Your task to perform on an android device: turn pop-ups on in chrome Image 0: 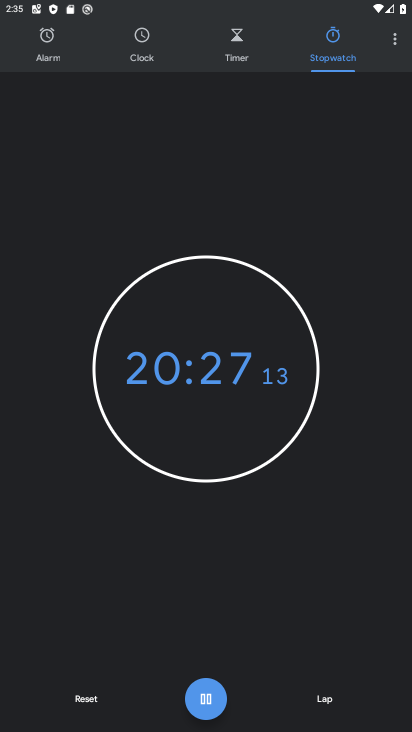
Step 0: press home button
Your task to perform on an android device: turn pop-ups on in chrome Image 1: 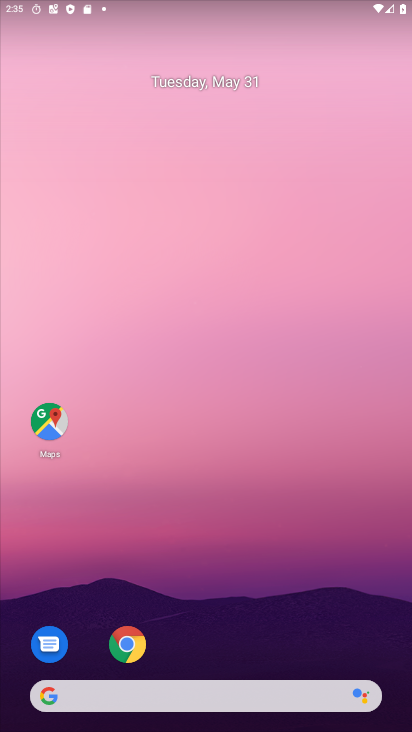
Step 1: click (129, 646)
Your task to perform on an android device: turn pop-ups on in chrome Image 2: 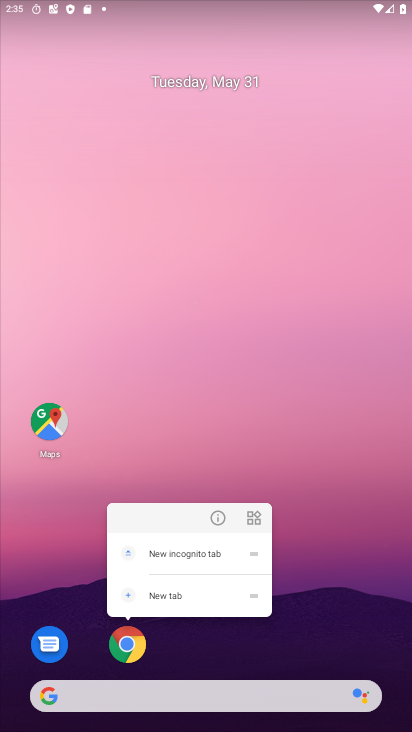
Step 2: click (123, 645)
Your task to perform on an android device: turn pop-ups on in chrome Image 3: 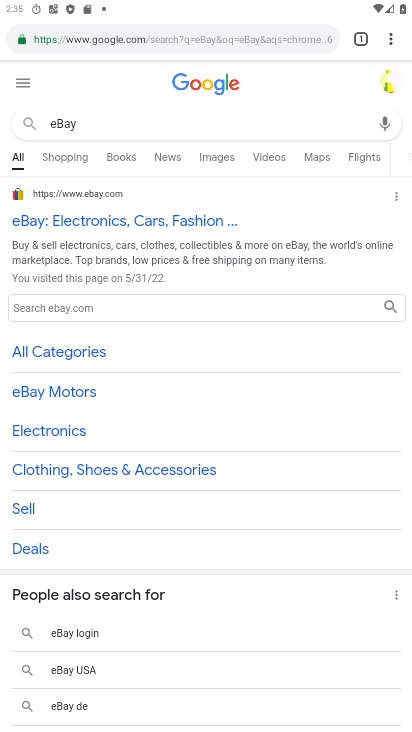
Step 3: click (386, 40)
Your task to perform on an android device: turn pop-ups on in chrome Image 4: 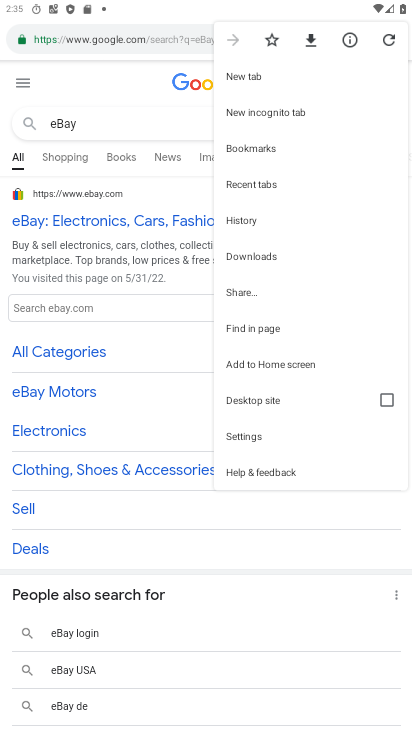
Step 4: click (257, 432)
Your task to perform on an android device: turn pop-ups on in chrome Image 5: 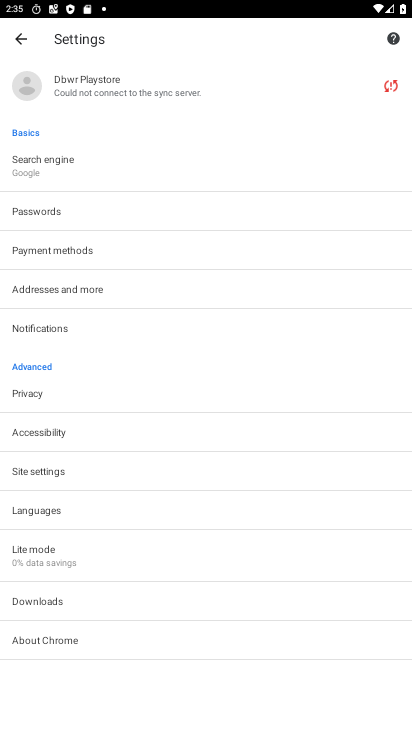
Step 5: click (25, 473)
Your task to perform on an android device: turn pop-ups on in chrome Image 6: 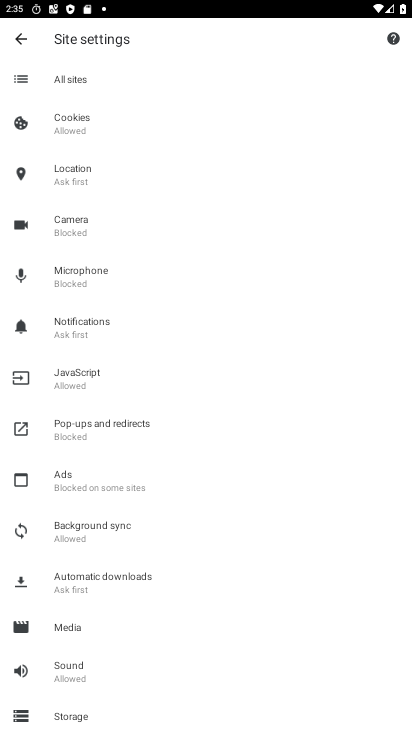
Step 6: click (87, 420)
Your task to perform on an android device: turn pop-ups on in chrome Image 7: 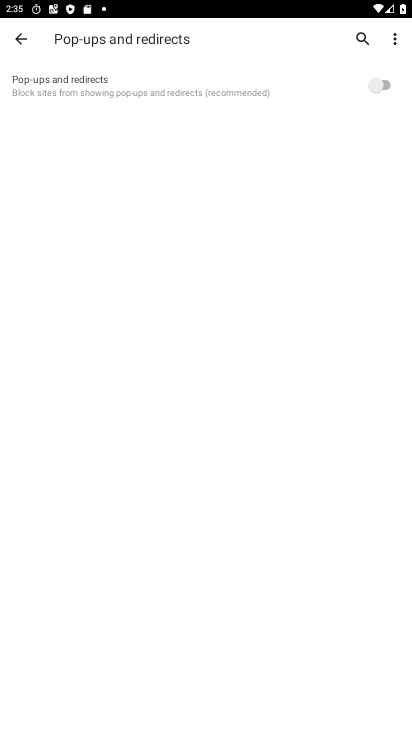
Step 7: click (387, 84)
Your task to perform on an android device: turn pop-ups on in chrome Image 8: 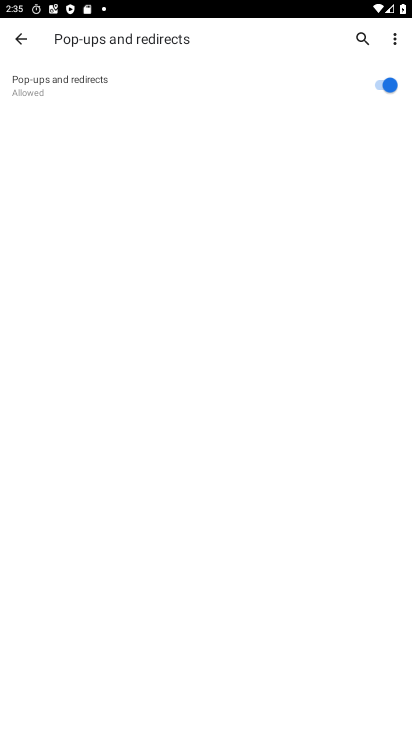
Step 8: task complete